Your task to perform on an android device: allow cookies in the chrome app Image 0: 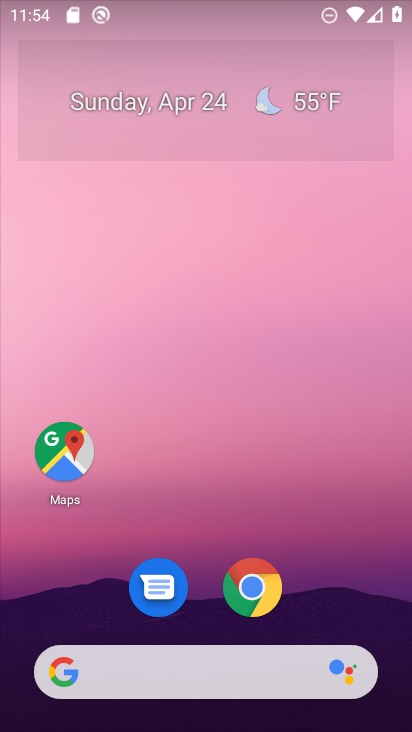
Step 0: drag from (302, 595) to (285, 106)
Your task to perform on an android device: allow cookies in the chrome app Image 1: 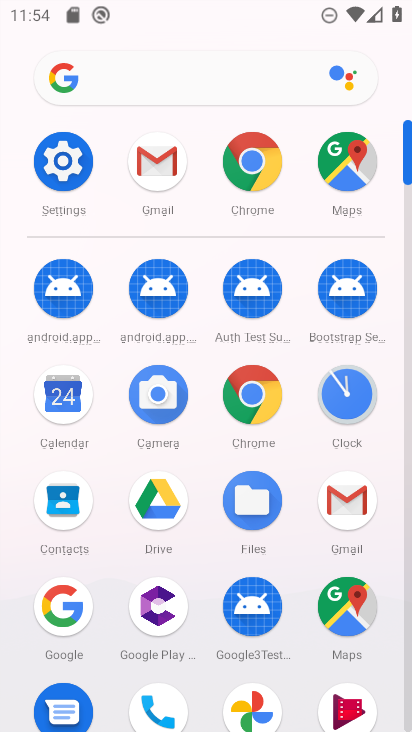
Step 1: click (246, 387)
Your task to perform on an android device: allow cookies in the chrome app Image 2: 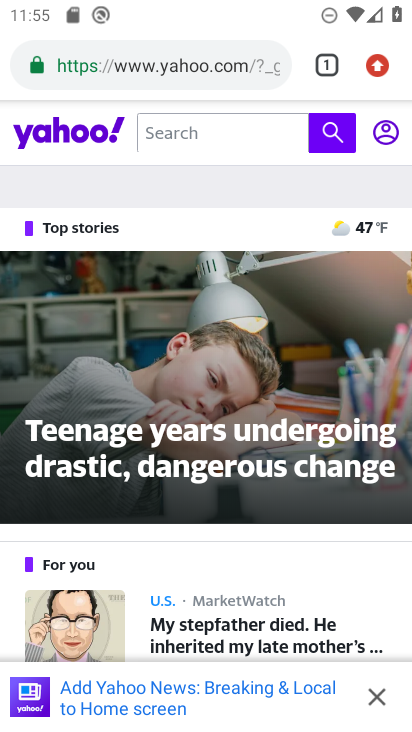
Step 2: drag from (399, 66) to (205, 632)
Your task to perform on an android device: allow cookies in the chrome app Image 3: 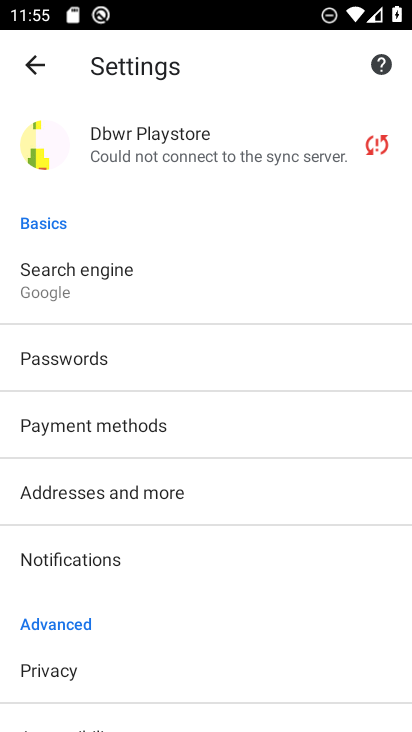
Step 3: click (221, 31)
Your task to perform on an android device: allow cookies in the chrome app Image 4: 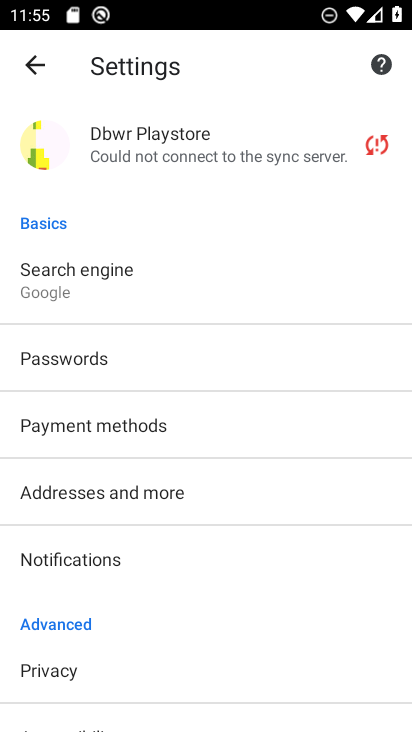
Step 4: drag from (173, 624) to (166, 380)
Your task to perform on an android device: allow cookies in the chrome app Image 5: 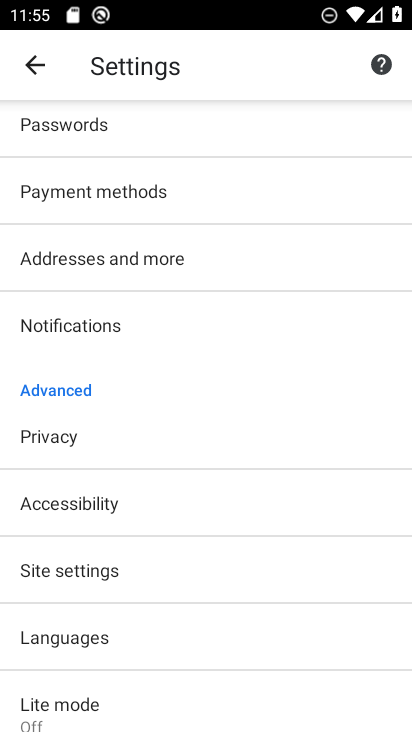
Step 5: click (107, 583)
Your task to perform on an android device: allow cookies in the chrome app Image 6: 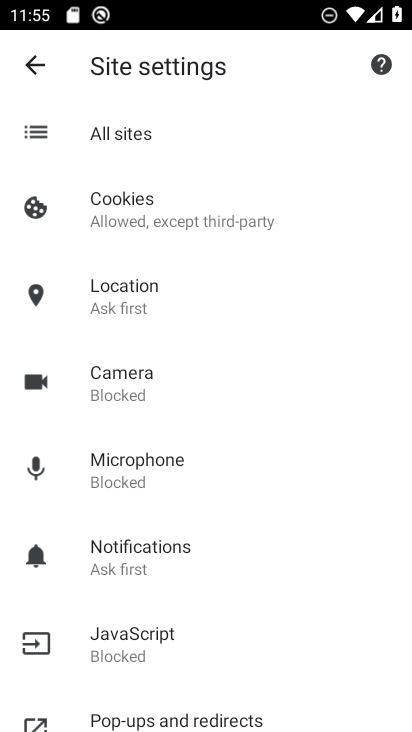
Step 6: click (190, 211)
Your task to perform on an android device: allow cookies in the chrome app Image 7: 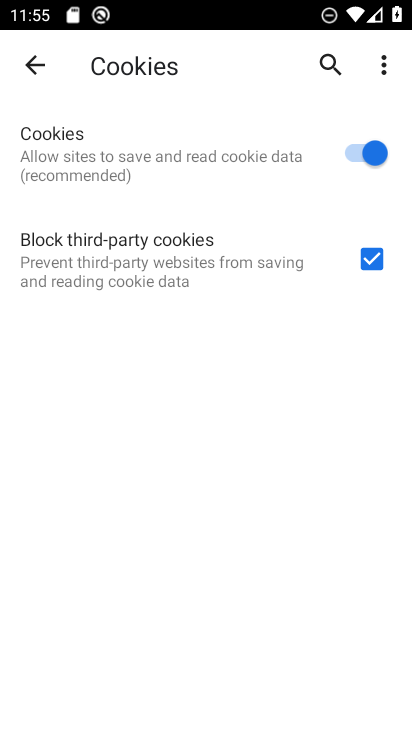
Step 7: task complete